Your task to perform on an android device: install app "VLC for Android" Image 0: 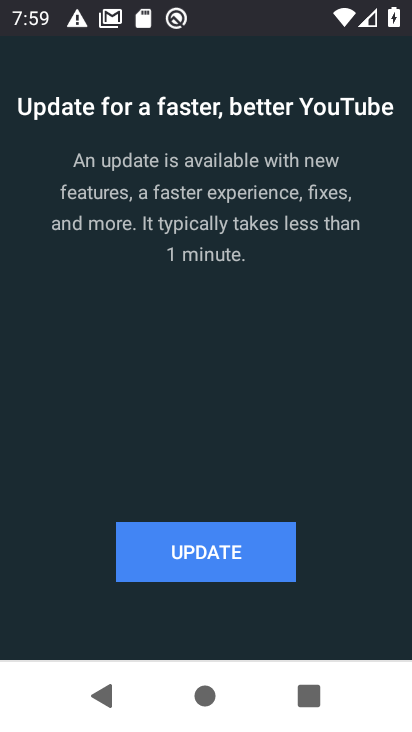
Step 0: press home button
Your task to perform on an android device: install app "VLC for Android" Image 1: 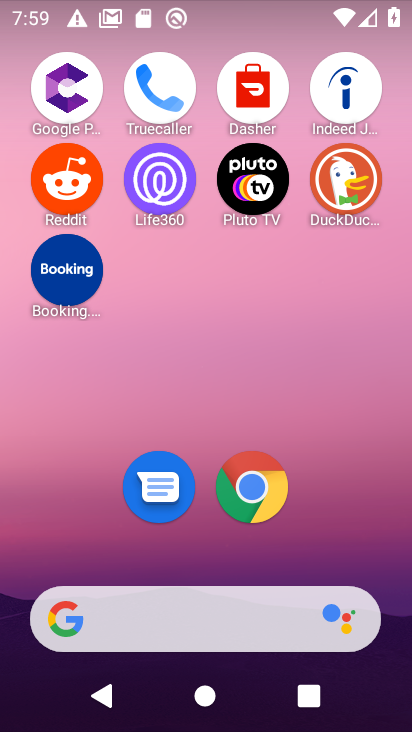
Step 1: drag from (359, 562) to (361, 37)
Your task to perform on an android device: install app "VLC for Android" Image 2: 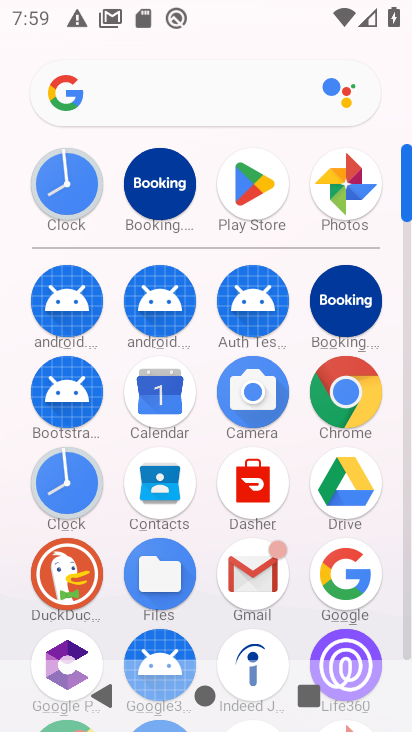
Step 2: click (257, 190)
Your task to perform on an android device: install app "VLC for Android" Image 3: 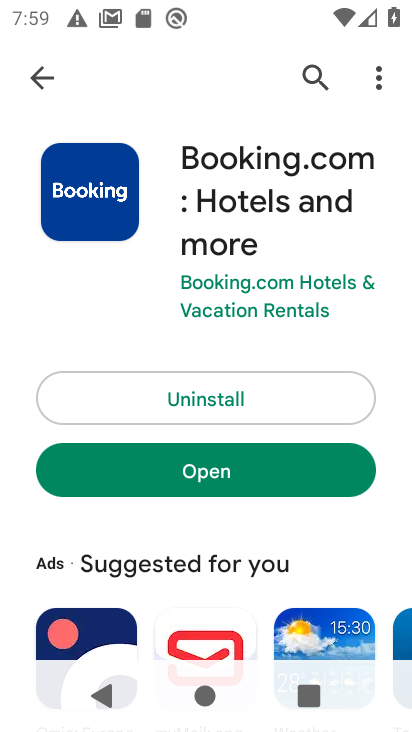
Step 3: click (316, 68)
Your task to perform on an android device: install app "VLC for Android" Image 4: 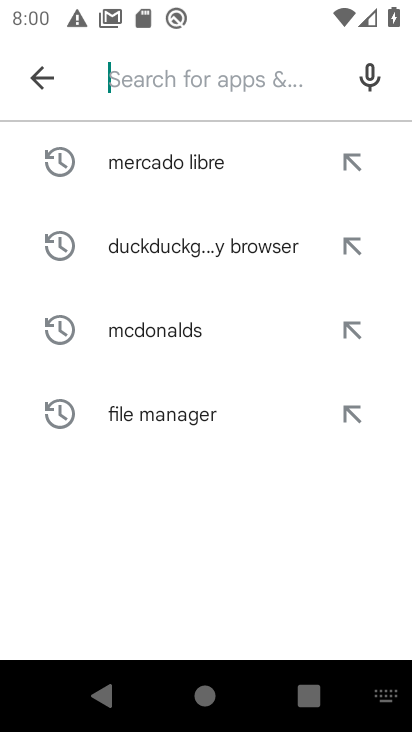
Step 4: type "vlc for android"
Your task to perform on an android device: install app "VLC for Android" Image 5: 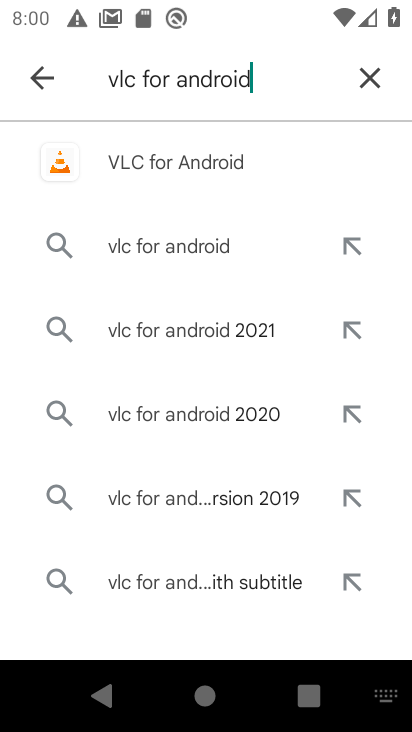
Step 5: click (194, 165)
Your task to perform on an android device: install app "VLC for Android" Image 6: 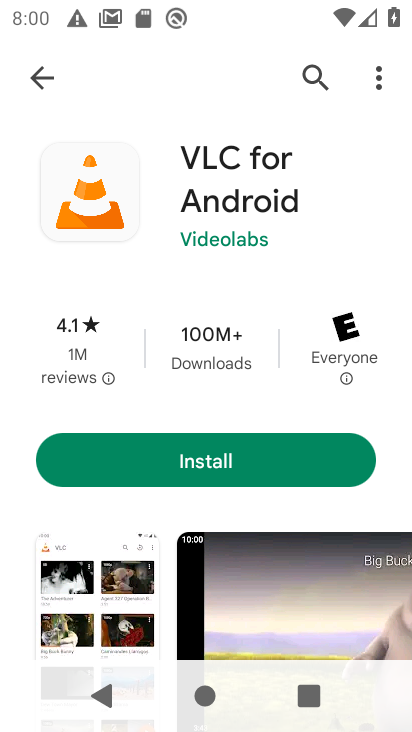
Step 6: click (247, 466)
Your task to perform on an android device: install app "VLC for Android" Image 7: 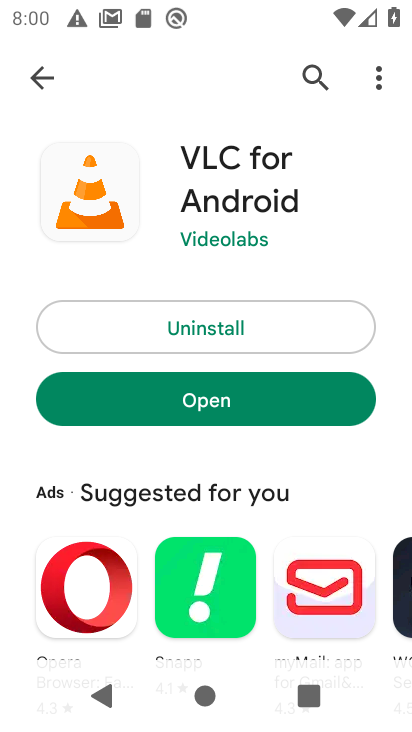
Step 7: task complete